Your task to perform on an android device: Add usb-a to usb-b to the cart on ebay Image 0: 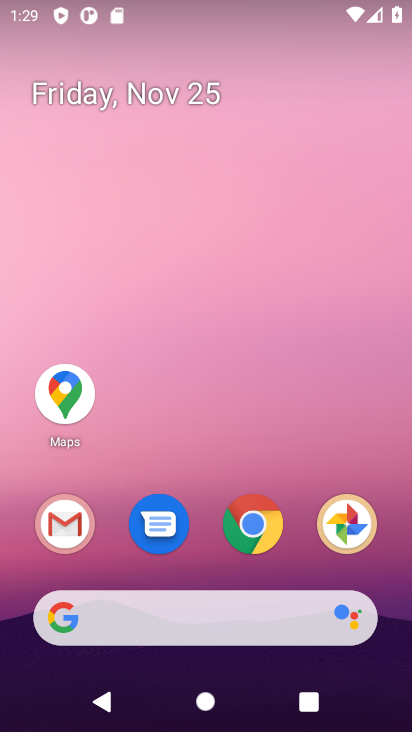
Step 0: click (255, 528)
Your task to perform on an android device: Add usb-a to usb-b to the cart on ebay Image 1: 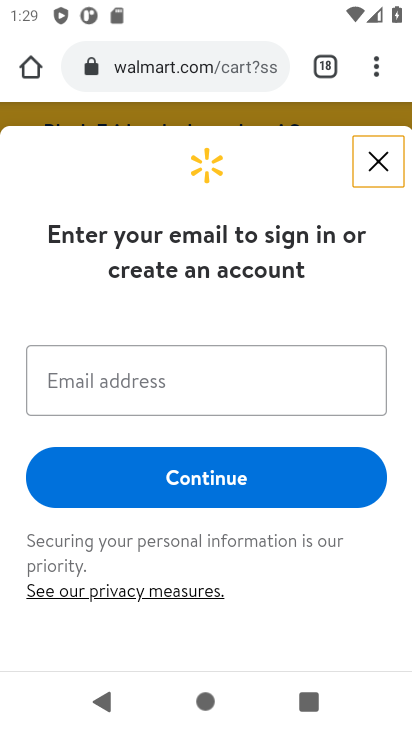
Step 1: click (162, 69)
Your task to perform on an android device: Add usb-a to usb-b to the cart on ebay Image 2: 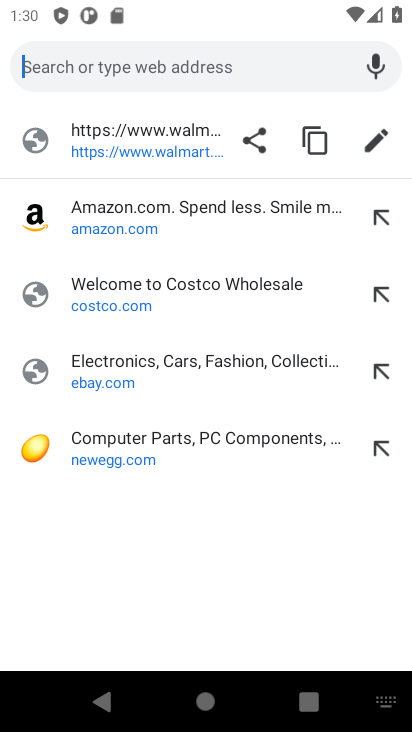
Step 2: click (105, 377)
Your task to perform on an android device: Add usb-a to usb-b to the cart on ebay Image 3: 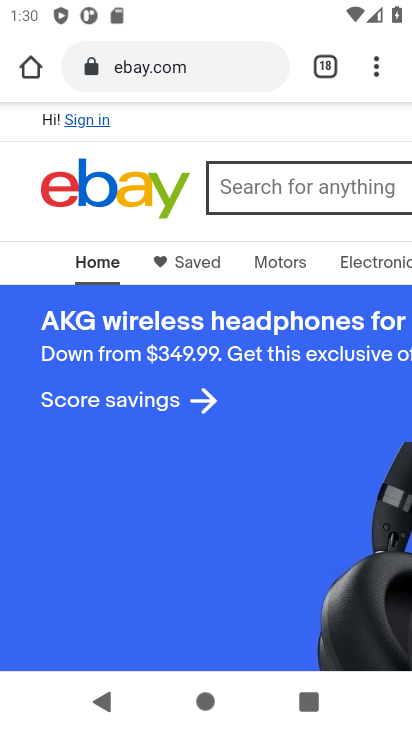
Step 3: click (262, 198)
Your task to perform on an android device: Add usb-a to usb-b to the cart on ebay Image 4: 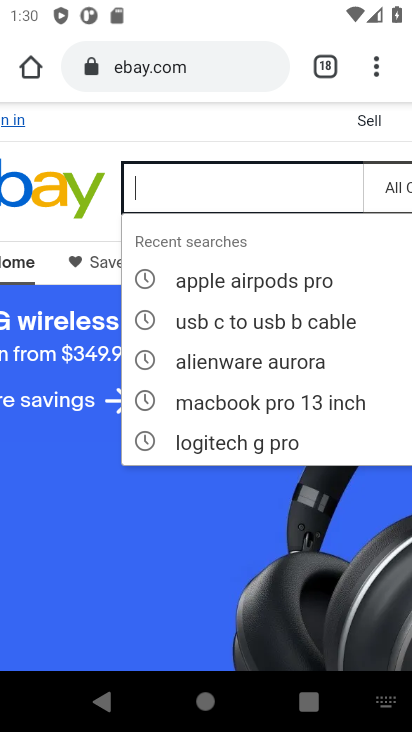
Step 4: type "usb-a to usb-b"
Your task to perform on an android device: Add usb-a to usb-b to the cart on ebay Image 5: 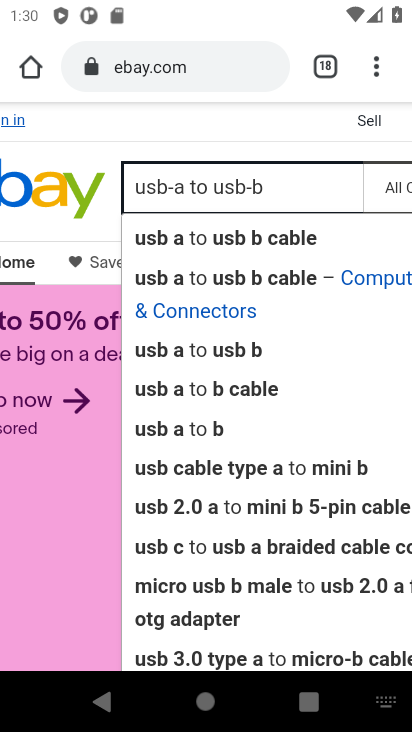
Step 5: click (198, 348)
Your task to perform on an android device: Add usb-a to usb-b to the cart on ebay Image 6: 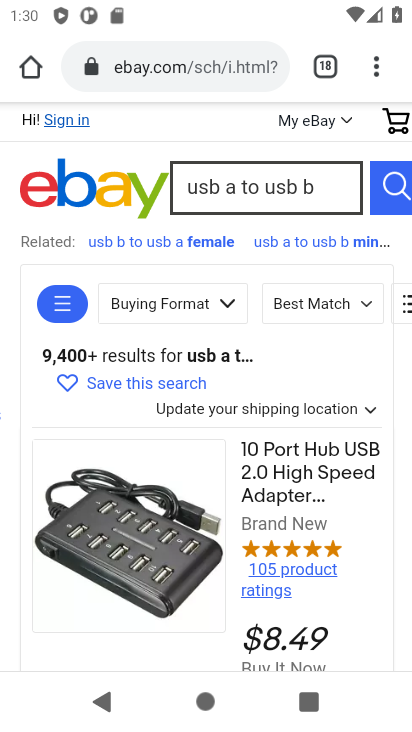
Step 6: drag from (157, 538) to (145, 329)
Your task to perform on an android device: Add usb-a to usb-b to the cart on ebay Image 7: 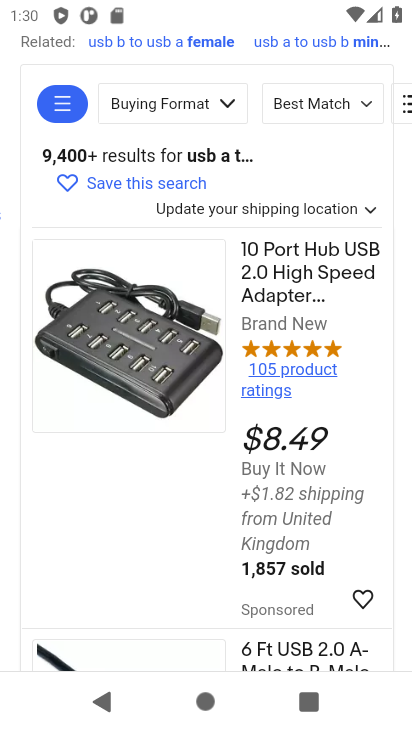
Step 7: drag from (172, 515) to (155, 252)
Your task to perform on an android device: Add usb-a to usb-b to the cart on ebay Image 8: 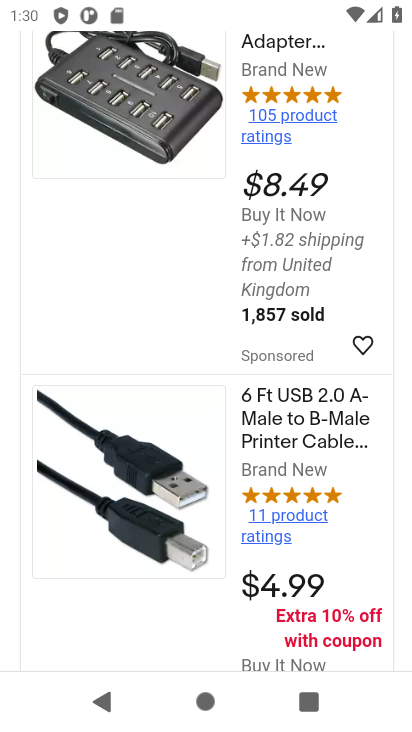
Step 8: drag from (155, 527) to (144, 304)
Your task to perform on an android device: Add usb-a to usb-b to the cart on ebay Image 9: 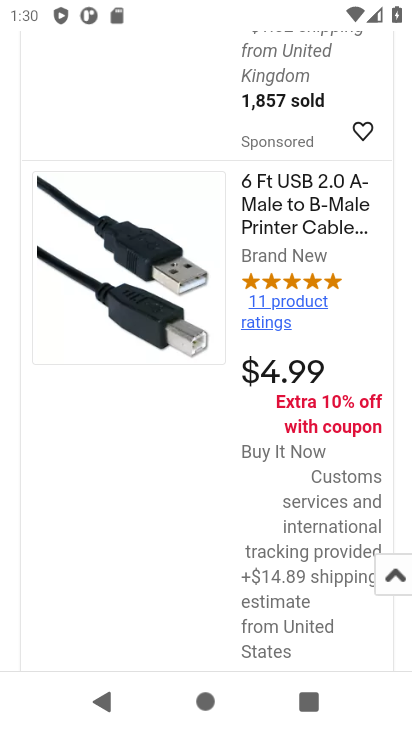
Step 9: drag from (141, 508) to (147, 250)
Your task to perform on an android device: Add usb-a to usb-b to the cart on ebay Image 10: 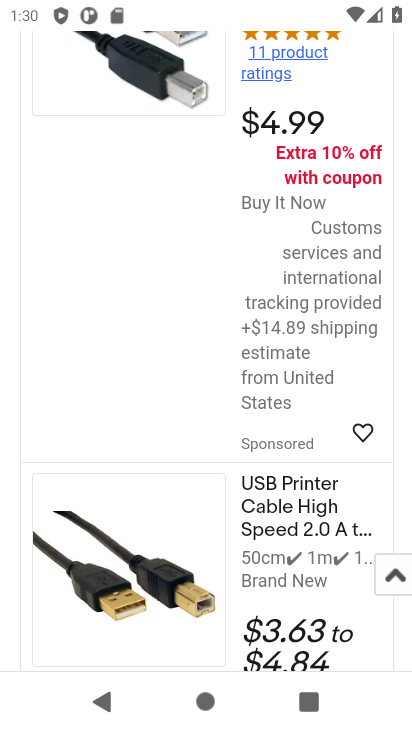
Step 10: drag from (149, 455) to (135, 265)
Your task to perform on an android device: Add usb-a to usb-b to the cart on ebay Image 11: 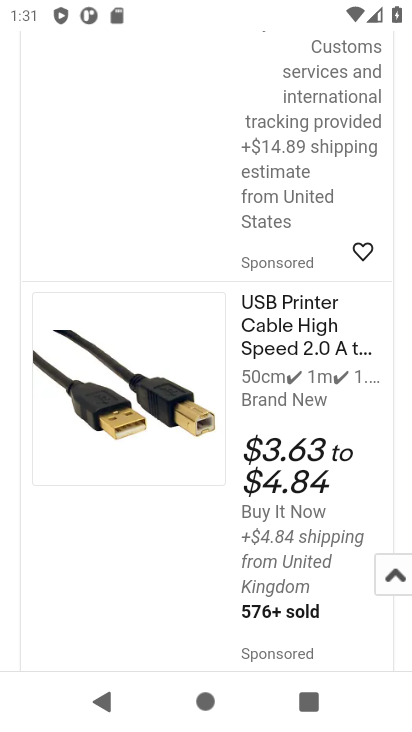
Step 11: drag from (164, 490) to (149, 282)
Your task to perform on an android device: Add usb-a to usb-b to the cart on ebay Image 12: 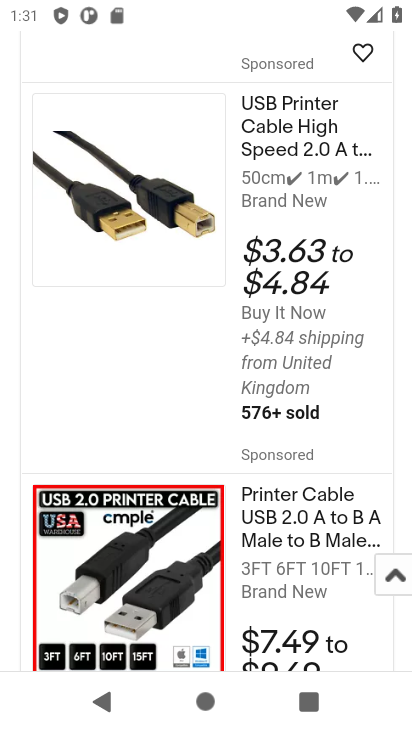
Step 12: drag from (133, 527) to (136, 373)
Your task to perform on an android device: Add usb-a to usb-b to the cart on ebay Image 13: 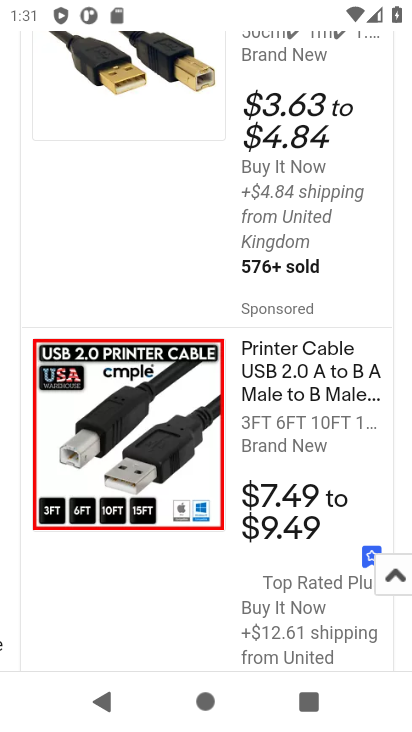
Step 13: click (289, 396)
Your task to perform on an android device: Add usb-a to usb-b to the cart on ebay Image 14: 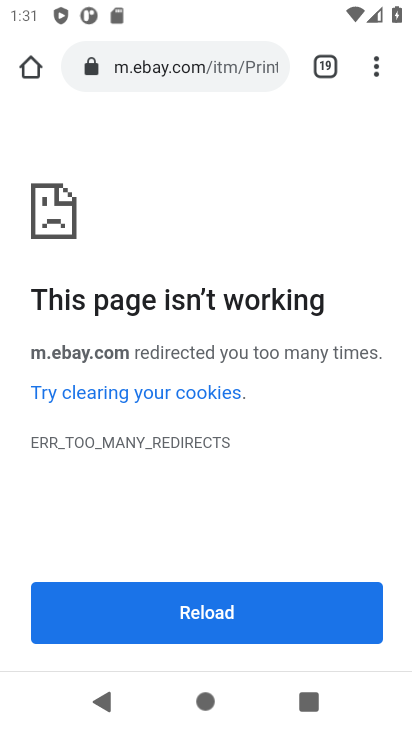
Step 14: task complete